Your task to perform on an android device: Search for pizza restaurants on Maps Image 0: 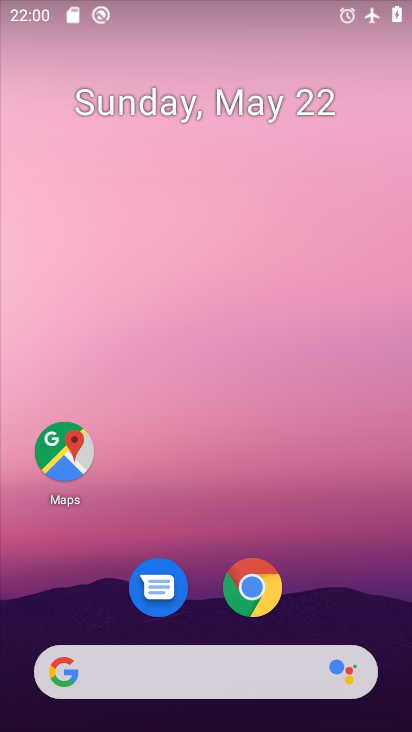
Step 0: click (59, 451)
Your task to perform on an android device: Search for pizza restaurants on Maps Image 1: 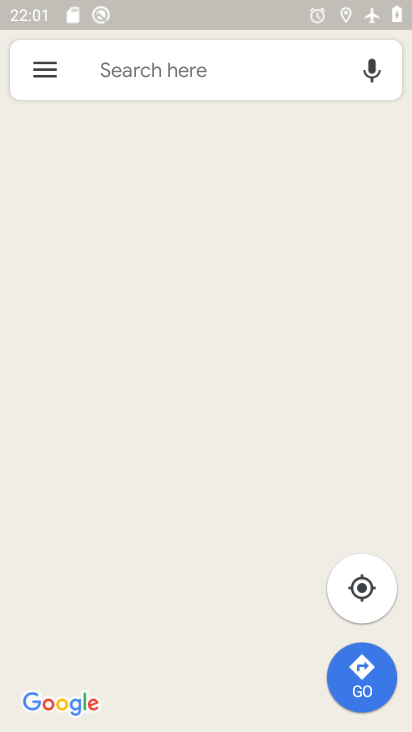
Step 1: click (184, 72)
Your task to perform on an android device: Search for pizza restaurants on Maps Image 2: 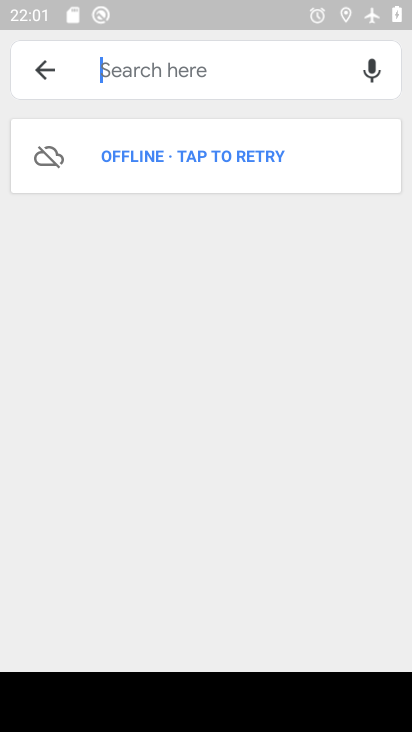
Step 2: task complete